Your task to perform on an android device: Go to CNN.com Image 0: 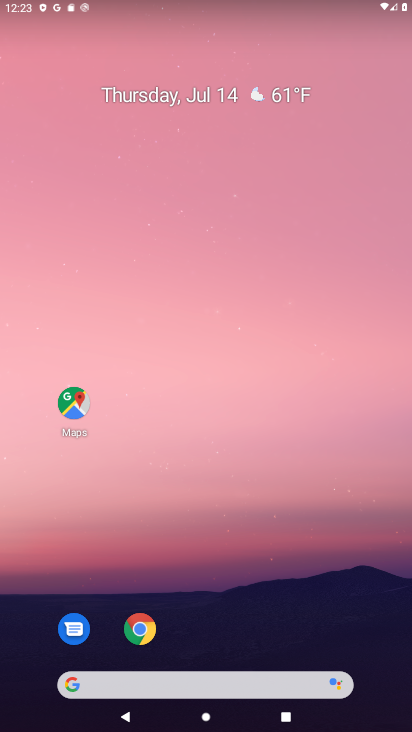
Step 0: click (144, 690)
Your task to perform on an android device: Go to CNN.com Image 1: 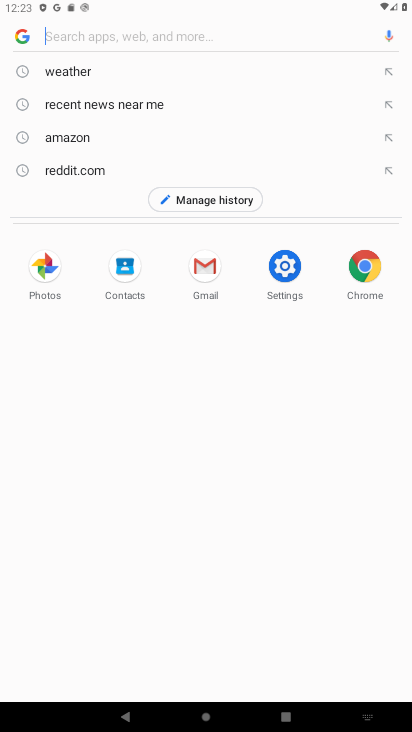
Step 1: type "cnn.com"
Your task to perform on an android device: Go to CNN.com Image 2: 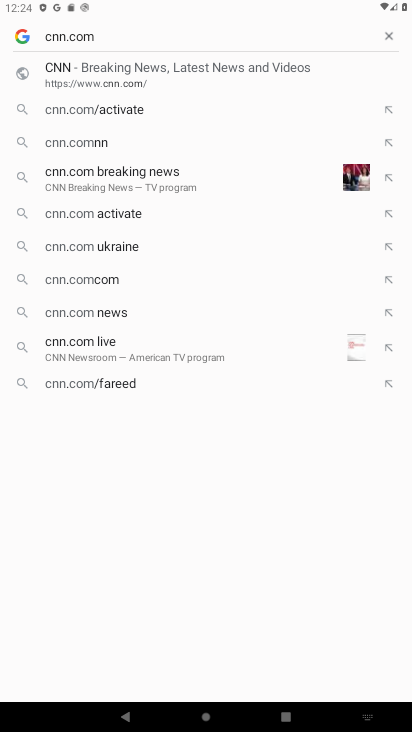
Step 2: click (135, 81)
Your task to perform on an android device: Go to CNN.com Image 3: 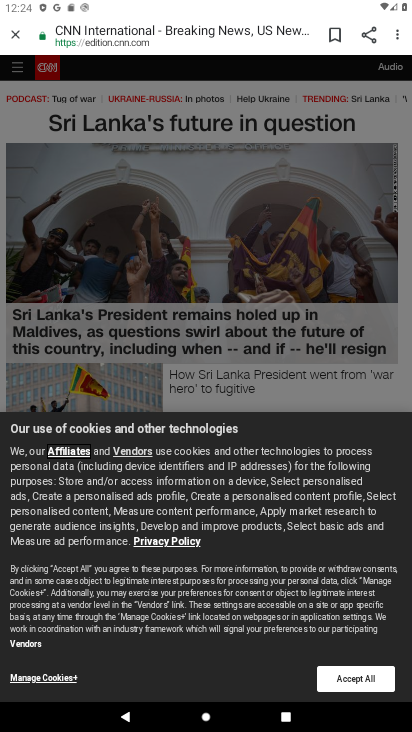
Step 3: task complete